Your task to perform on an android device: turn off location Image 0: 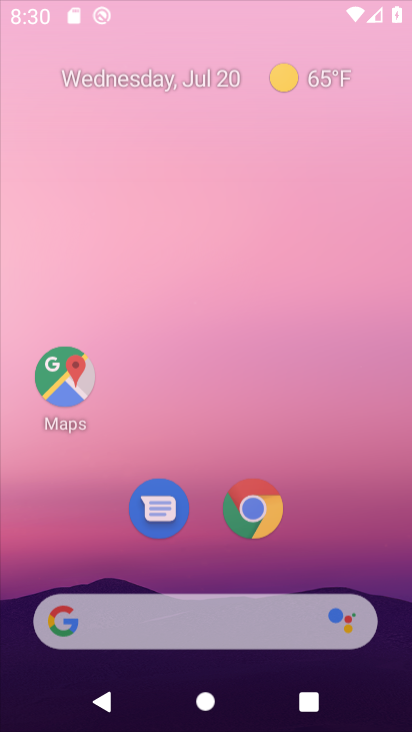
Step 0: drag from (289, 210) to (248, 39)
Your task to perform on an android device: turn off location Image 1: 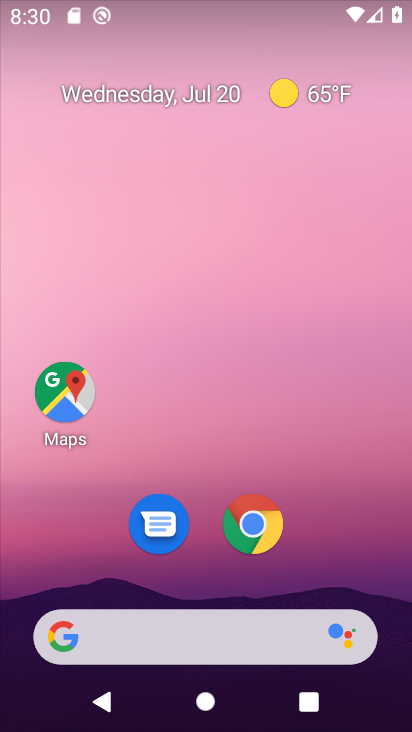
Step 1: drag from (326, 523) to (352, 17)
Your task to perform on an android device: turn off location Image 2: 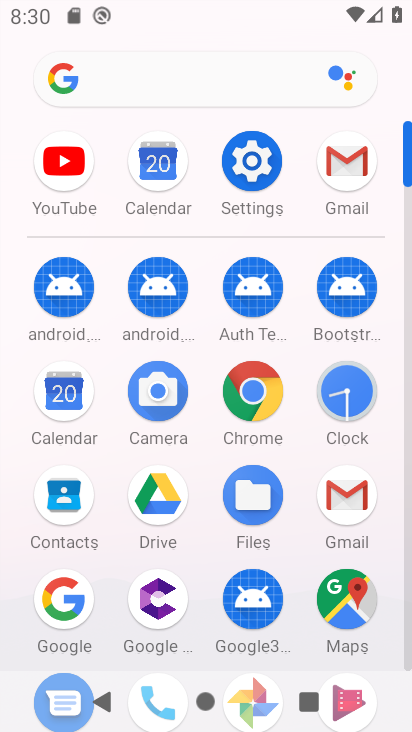
Step 2: click (256, 155)
Your task to perform on an android device: turn off location Image 3: 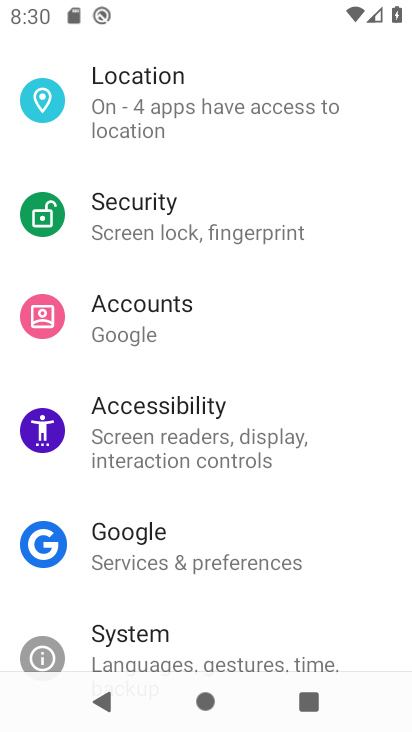
Step 3: click (214, 100)
Your task to perform on an android device: turn off location Image 4: 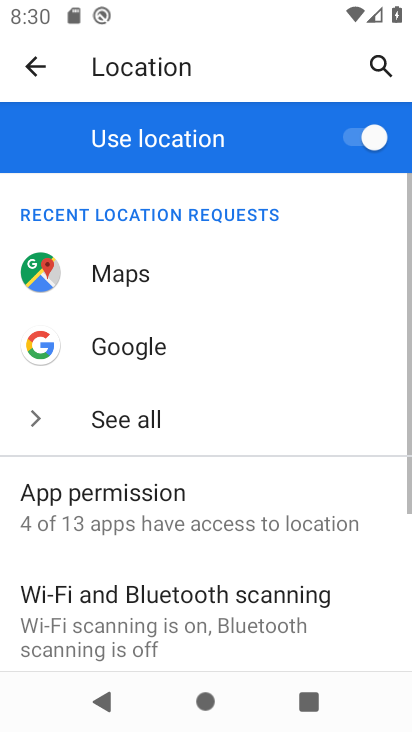
Step 4: click (351, 138)
Your task to perform on an android device: turn off location Image 5: 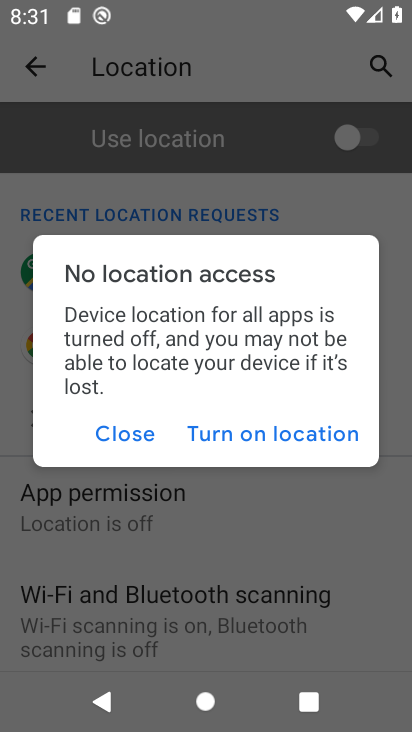
Step 5: click (131, 431)
Your task to perform on an android device: turn off location Image 6: 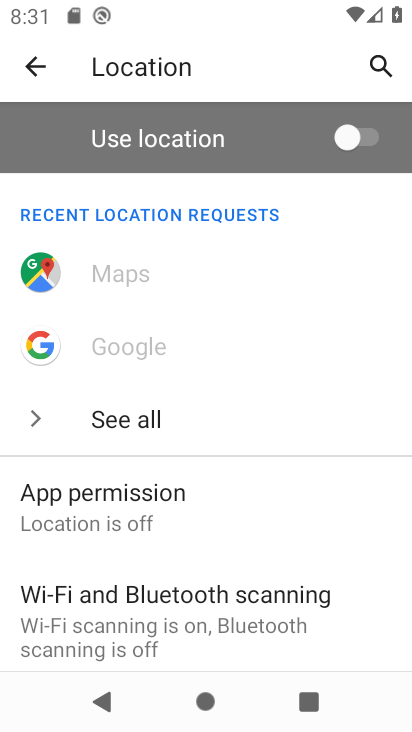
Step 6: task complete